Your task to perform on an android device: Open Google Maps Image 0: 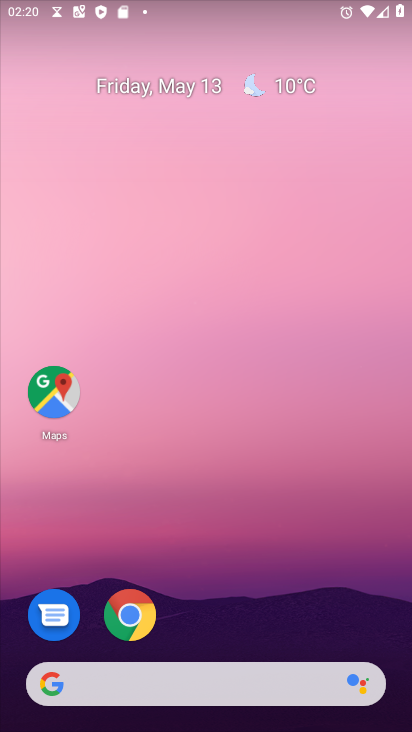
Step 0: click (47, 389)
Your task to perform on an android device: Open Google Maps Image 1: 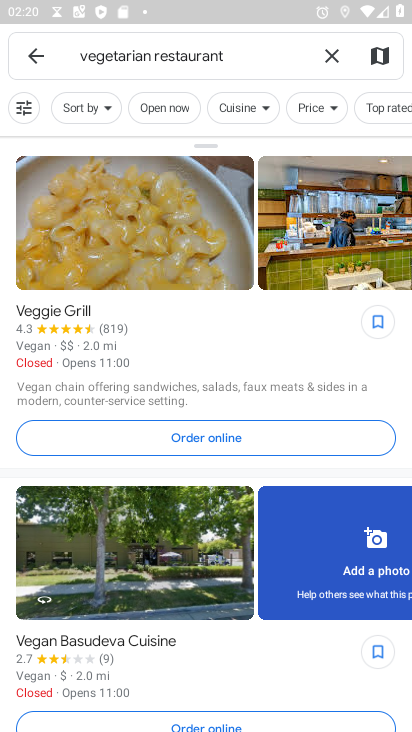
Step 1: task complete